Your task to perform on an android device: Open calendar and show me the third week of next month Image 0: 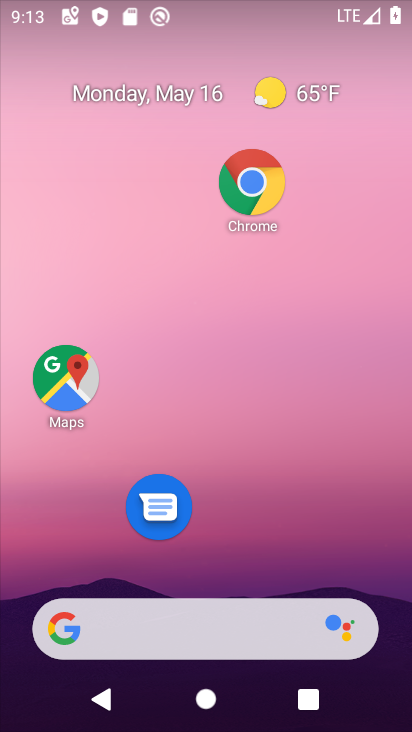
Step 0: drag from (217, 583) to (179, 130)
Your task to perform on an android device: Open calendar and show me the third week of next month Image 1: 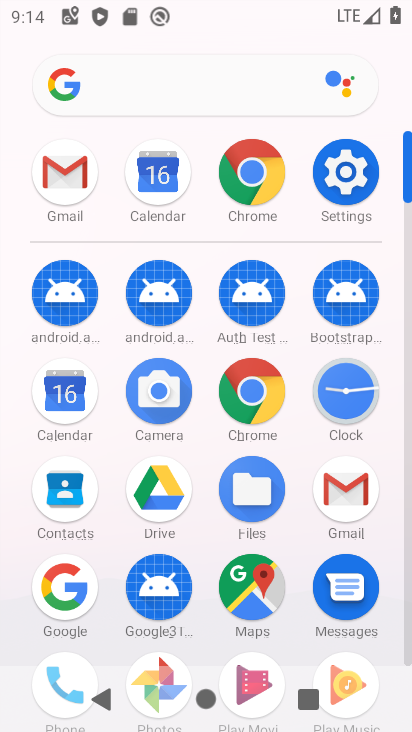
Step 1: click (70, 393)
Your task to perform on an android device: Open calendar and show me the third week of next month Image 2: 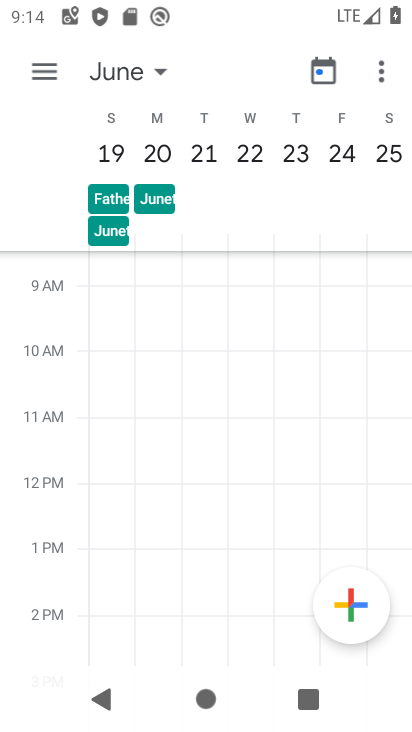
Step 2: task complete